Your task to perform on an android device: Open network settings Image 0: 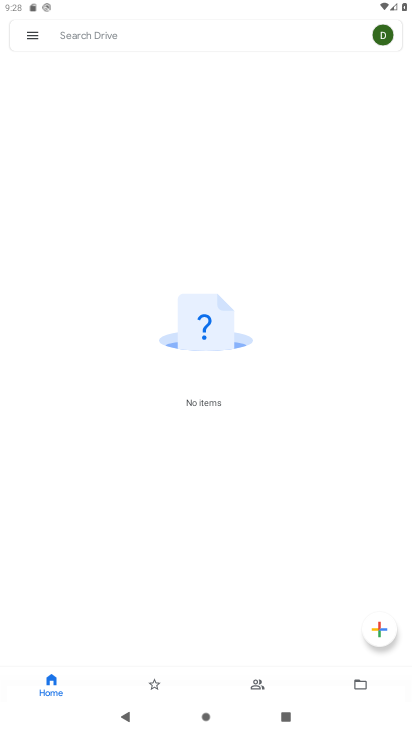
Step 0: press home button
Your task to perform on an android device: Open network settings Image 1: 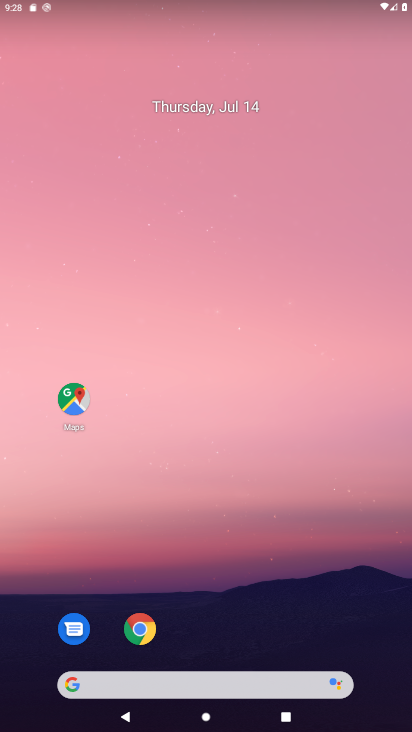
Step 1: drag from (271, 605) to (270, 87)
Your task to perform on an android device: Open network settings Image 2: 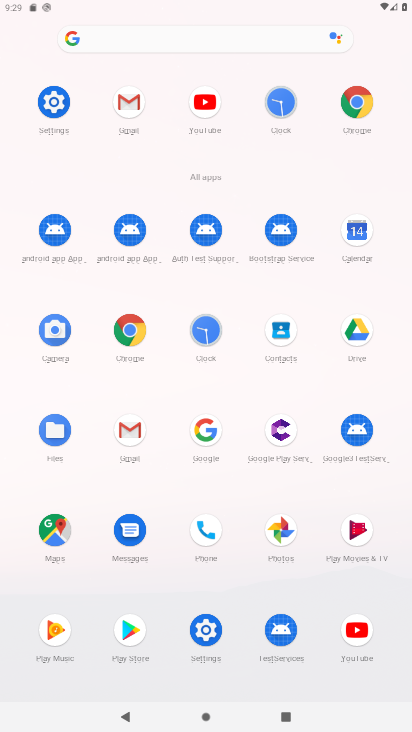
Step 2: click (203, 624)
Your task to perform on an android device: Open network settings Image 3: 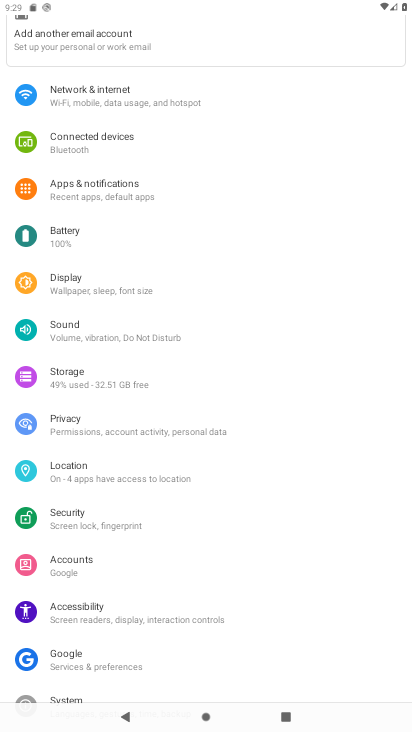
Step 3: click (102, 92)
Your task to perform on an android device: Open network settings Image 4: 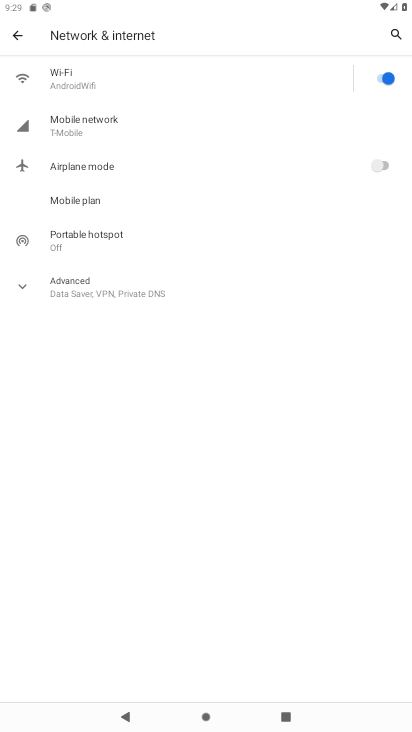
Step 4: task complete